Your task to perform on an android device: delete browsing data in the chrome app Image 0: 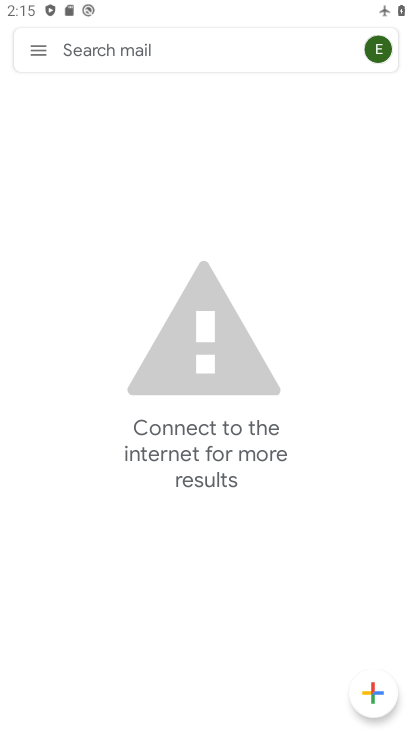
Step 0: press home button
Your task to perform on an android device: delete browsing data in the chrome app Image 1: 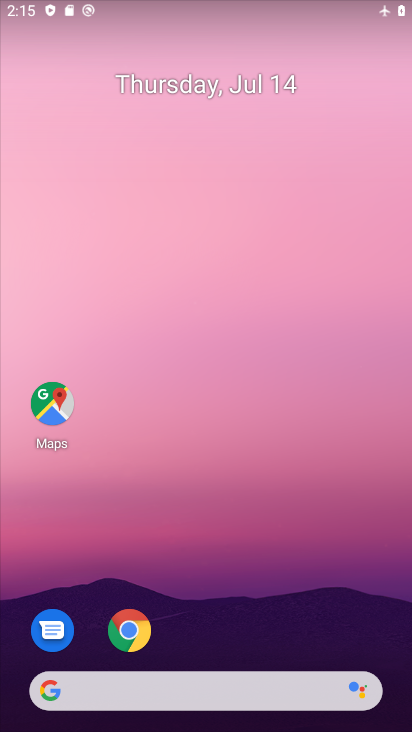
Step 1: click (128, 623)
Your task to perform on an android device: delete browsing data in the chrome app Image 2: 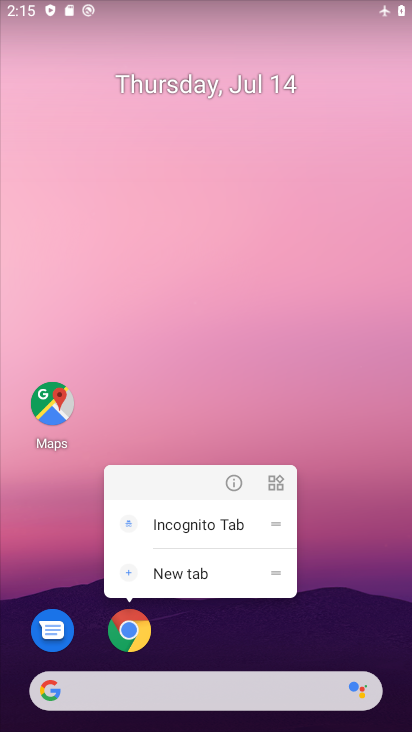
Step 2: click (127, 625)
Your task to perform on an android device: delete browsing data in the chrome app Image 3: 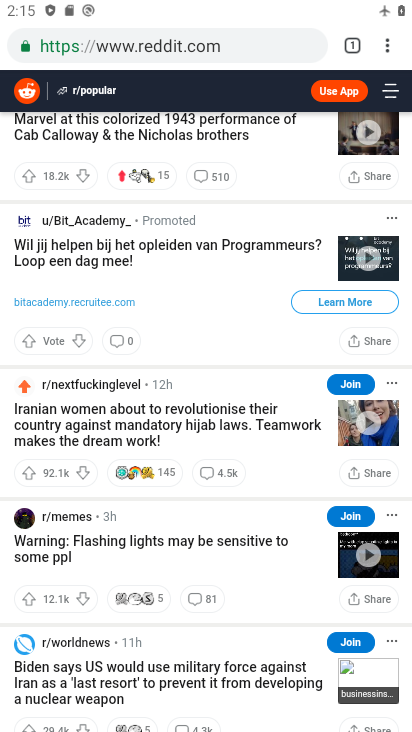
Step 3: click (392, 45)
Your task to perform on an android device: delete browsing data in the chrome app Image 4: 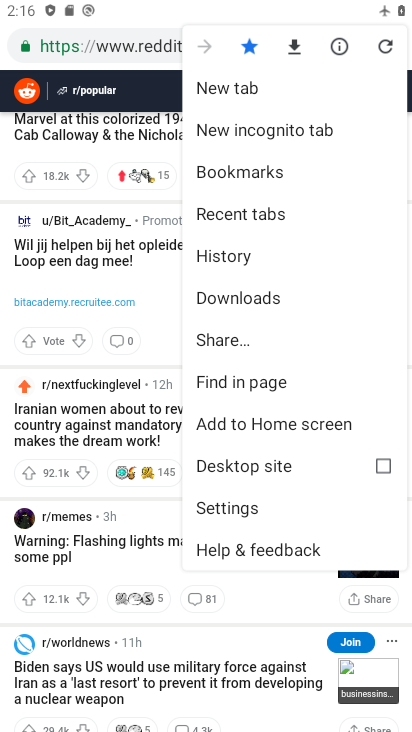
Step 4: click (259, 250)
Your task to perform on an android device: delete browsing data in the chrome app Image 5: 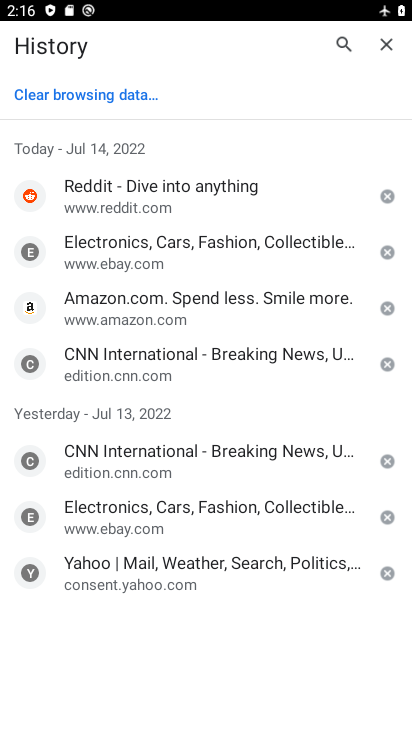
Step 5: click (93, 93)
Your task to perform on an android device: delete browsing data in the chrome app Image 6: 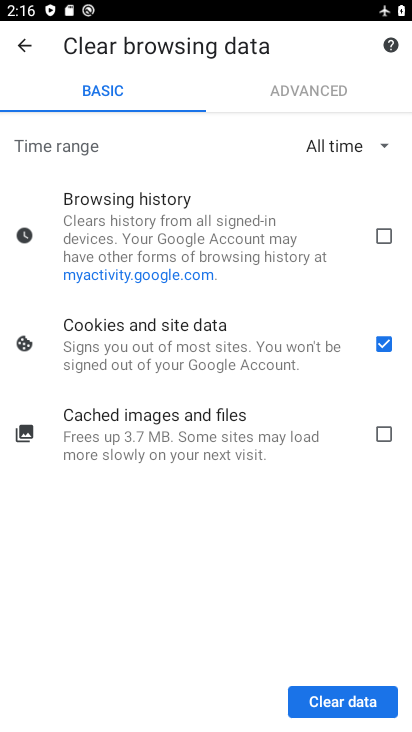
Step 6: click (381, 231)
Your task to perform on an android device: delete browsing data in the chrome app Image 7: 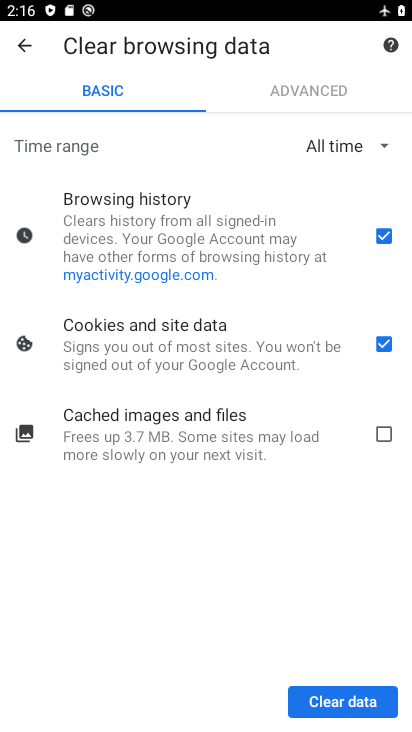
Step 7: click (379, 433)
Your task to perform on an android device: delete browsing data in the chrome app Image 8: 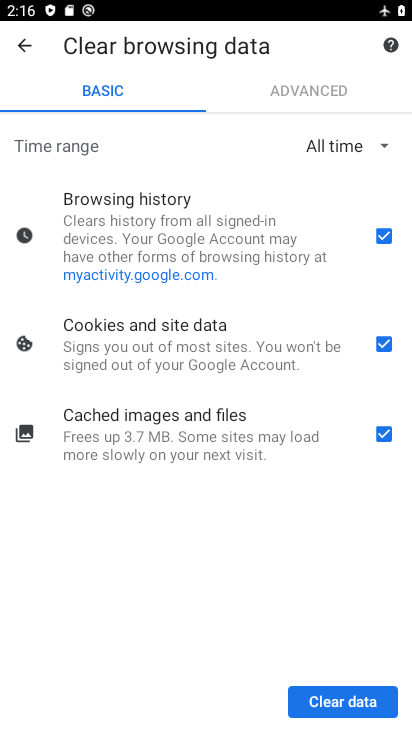
Step 8: click (353, 693)
Your task to perform on an android device: delete browsing data in the chrome app Image 9: 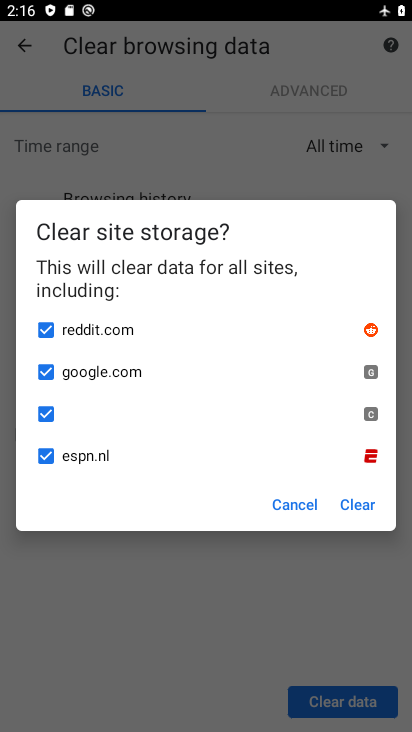
Step 9: click (361, 510)
Your task to perform on an android device: delete browsing data in the chrome app Image 10: 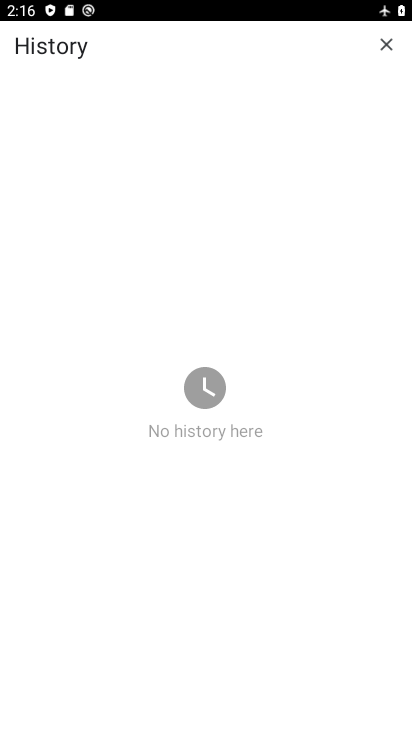
Step 10: task complete